Your task to perform on an android device: Open Google Chrome and click the shortcut for Amazon.com Image 0: 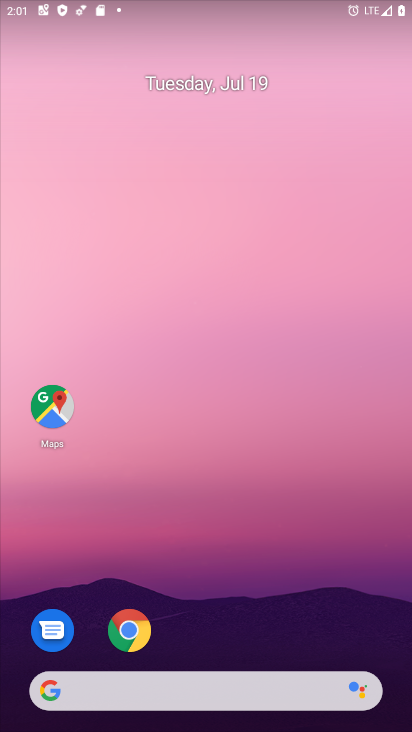
Step 0: click (139, 622)
Your task to perform on an android device: Open Google Chrome and click the shortcut for Amazon.com Image 1: 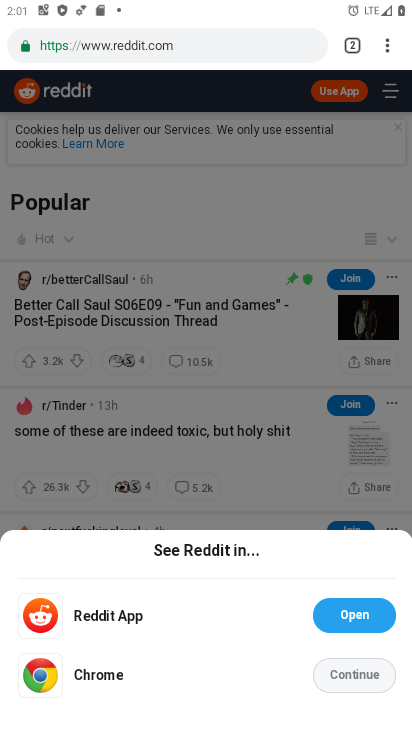
Step 1: click (349, 665)
Your task to perform on an android device: Open Google Chrome and click the shortcut for Amazon.com Image 2: 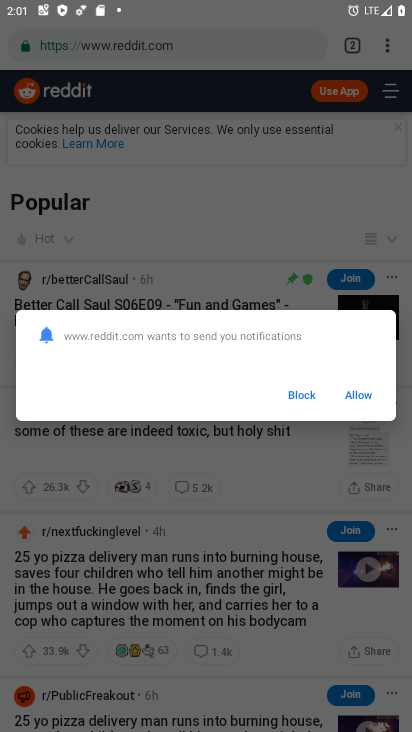
Step 2: click (349, 46)
Your task to perform on an android device: Open Google Chrome and click the shortcut for Amazon.com Image 3: 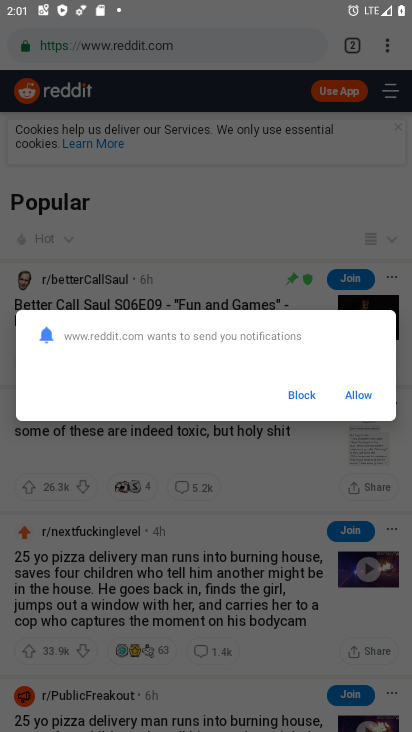
Step 3: click (349, 400)
Your task to perform on an android device: Open Google Chrome and click the shortcut for Amazon.com Image 4: 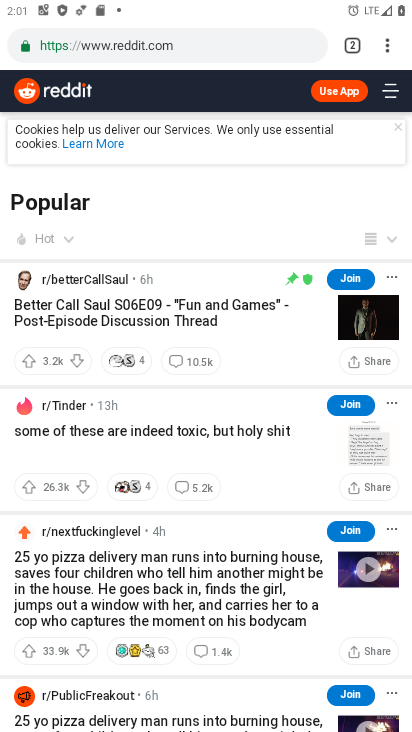
Step 4: click (353, 40)
Your task to perform on an android device: Open Google Chrome and click the shortcut for Amazon.com Image 5: 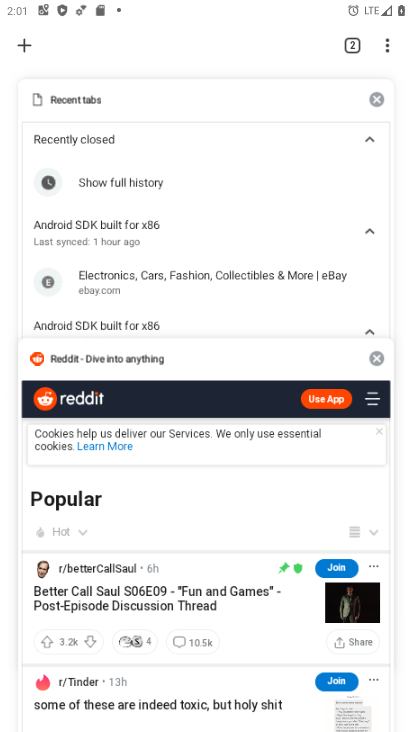
Step 5: click (26, 47)
Your task to perform on an android device: Open Google Chrome and click the shortcut for Amazon.com Image 6: 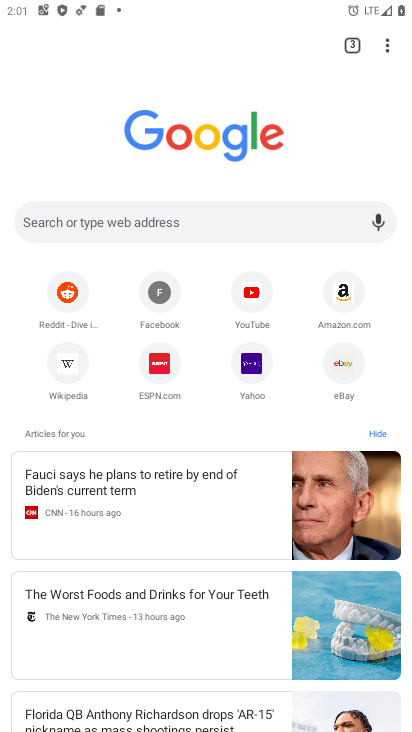
Step 6: click (341, 294)
Your task to perform on an android device: Open Google Chrome and click the shortcut for Amazon.com Image 7: 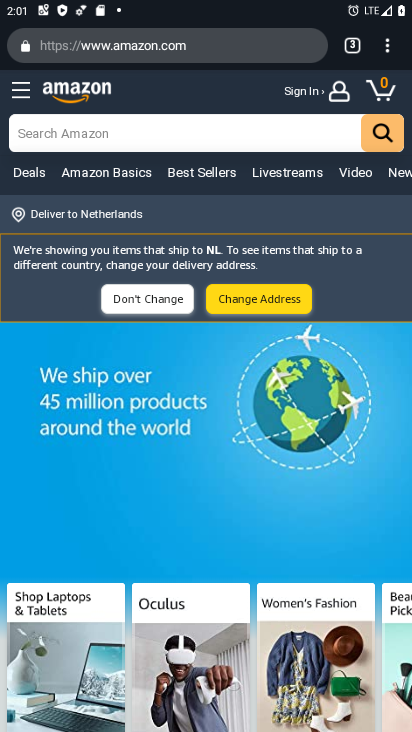
Step 7: task complete